Your task to perform on an android device: search for starred emails in the gmail app Image 0: 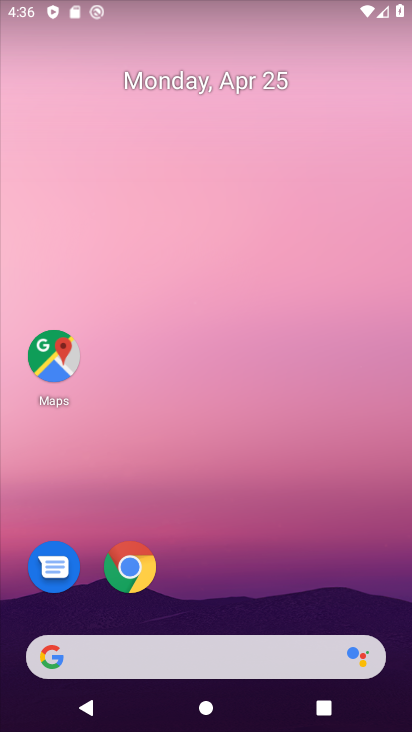
Step 0: drag from (222, 580) to (286, 19)
Your task to perform on an android device: search for starred emails in the gmail app Image 1: 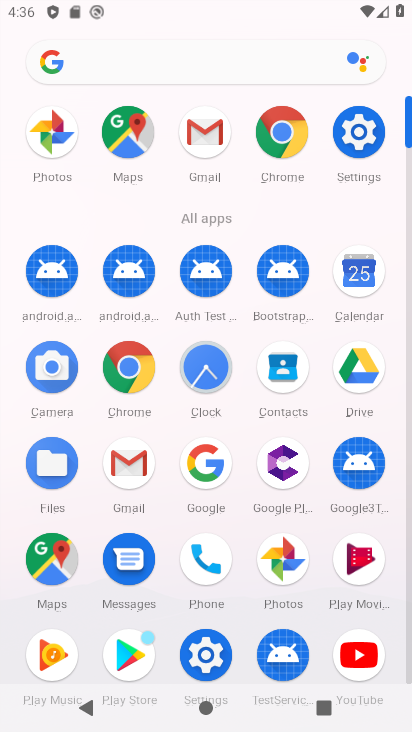
Step 1: click (203, 131)
Your task to perform on an android device: search for starred emails in the gmail app Image 2: 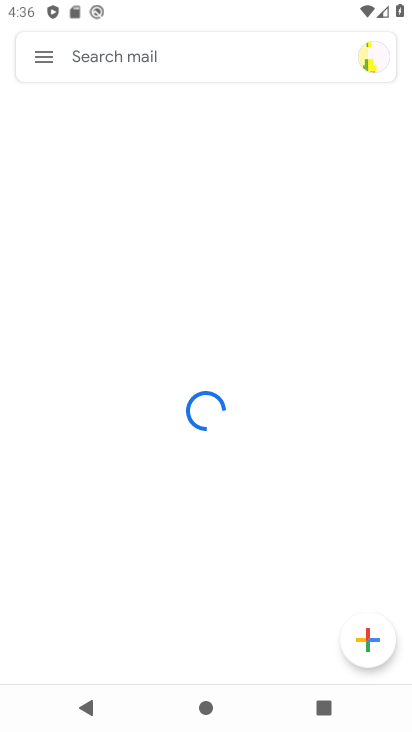
Step 2: click (37, 55)
Your task to perform on an android device: search for starred emails in the gmail app Image 3: 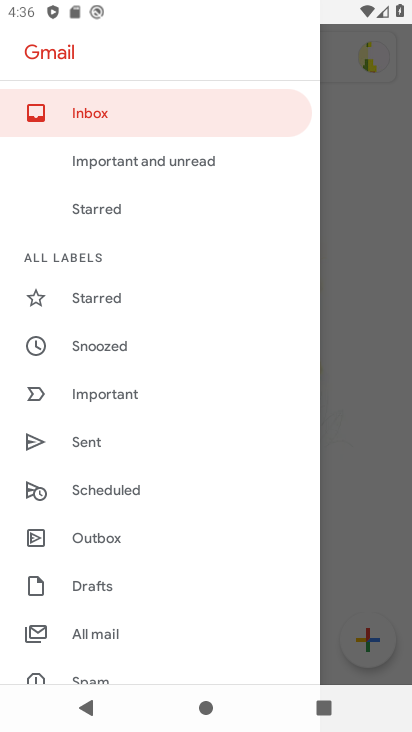
Step 3: click (101, 293)
Your task to perform on an android device: search for starred emails in the gmail app Image 4: 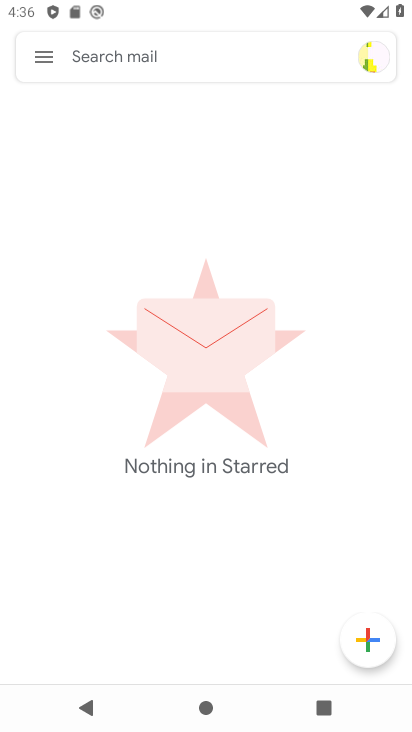
Step 4: task complete